Your task to perform on an android device: open a new tab in the chrome app Image 0: 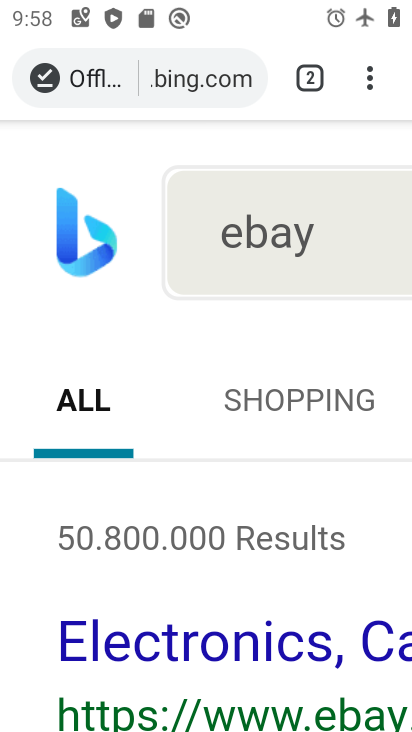
Step 0: press home button
Your task to perform on an android device: open a new tab in the chrome app Image 1: 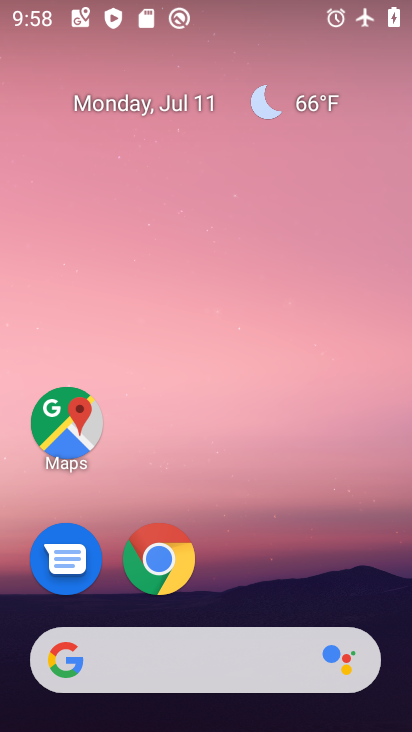
Step 1: drag from (367, 554) to (364, 154)
Your task to perform on an android device: open a new tab in the chrome app Image 2: 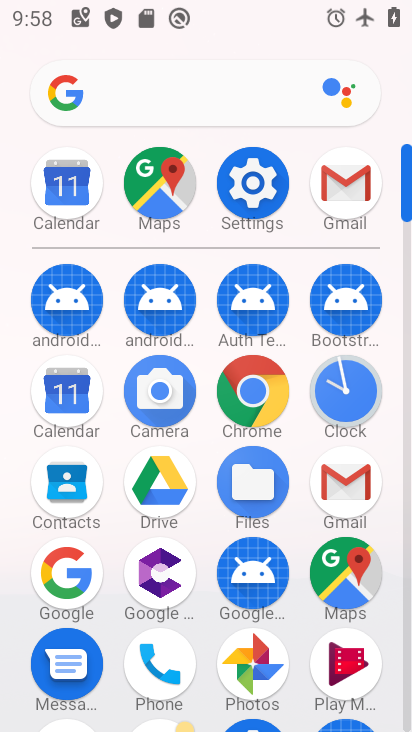
Step 2: click (265, 393)
Your task to perform on an android device: open a new tab in the chrome app Image 3: 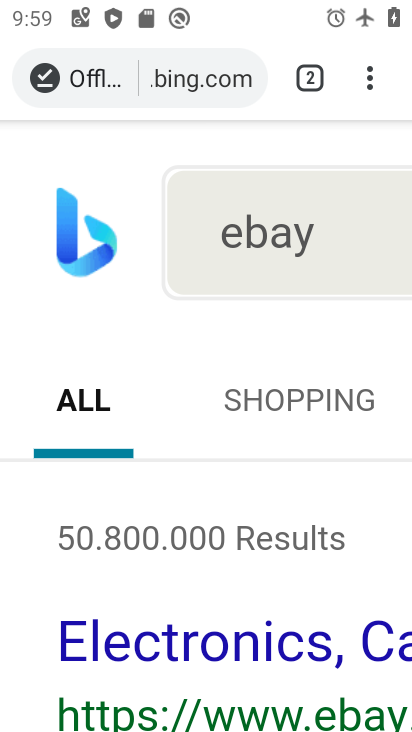
Step 3: click (368, 87)
Your task to perform on an android device: open a new tab in the chrome app Image 4: 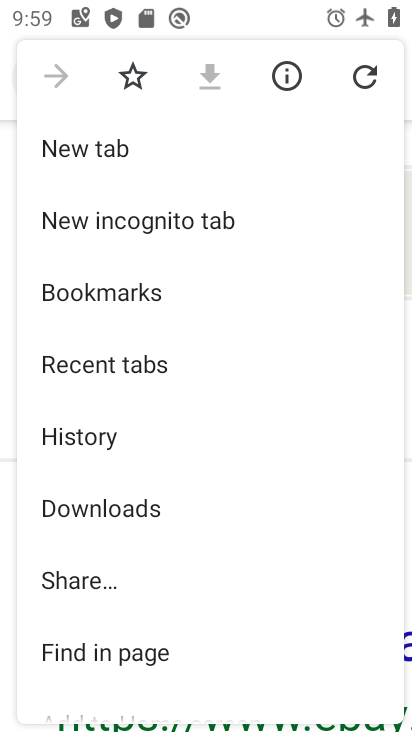
Step 4: click (150, 147)
Your task to perform on an android device: open a new tab in the chrome app Image 5: 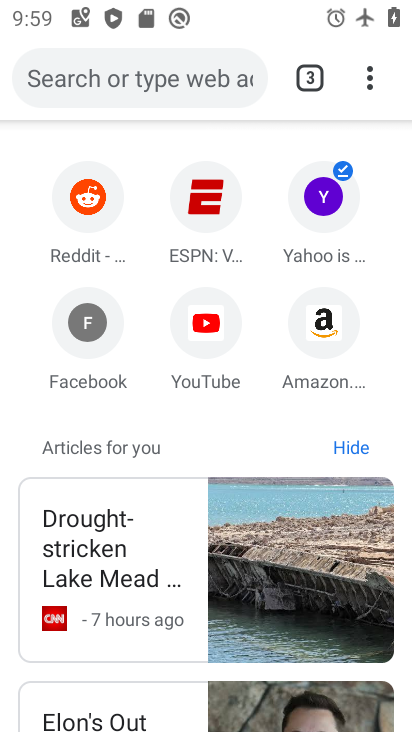
Step 5: task complete